Your task to perform on an android device: Open Android settings Image 0: 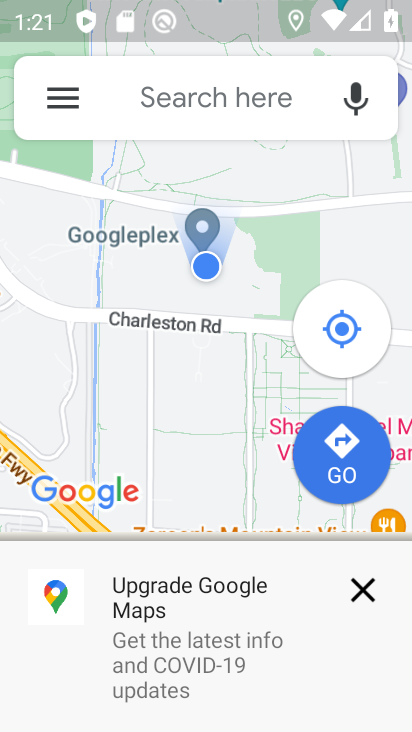
Step 0: press home button
Your task to perform on an android device: Open Android settings Image 1: 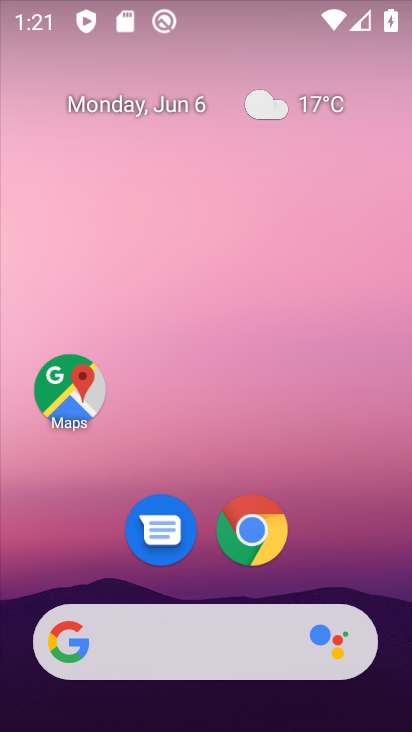
Step 1: drag from (269, 560) to (285, 197)
Your task to perform on an android device: Open Android settings Image 2: 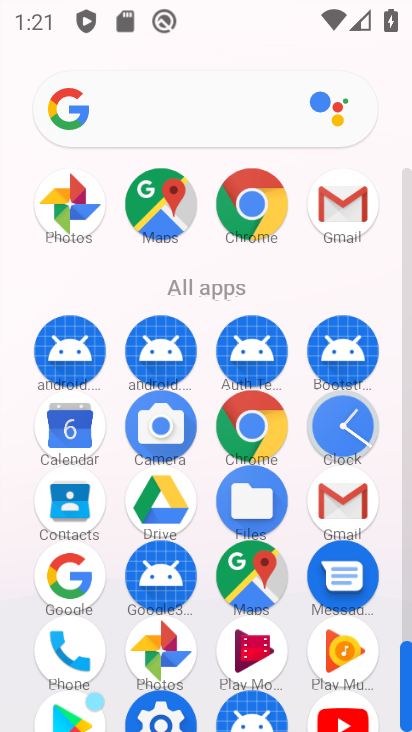
Step 2: click (164, 703)
Your task to perform on an android device: Open Android settings Image 3: 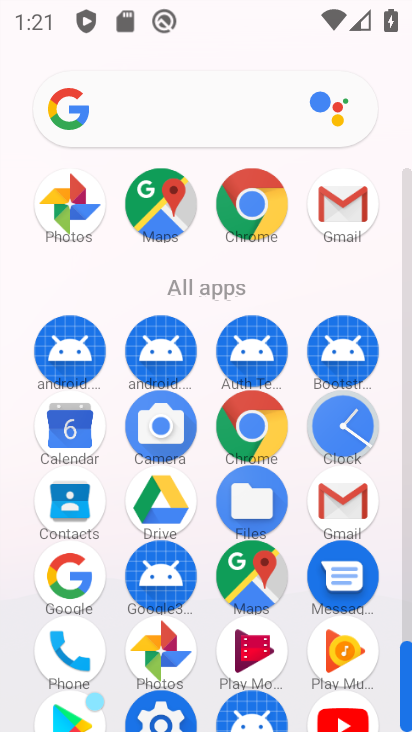
Step 3: drag from (199, 658) to (213, 375)
Your task to perform on an android device: Open Android settings Image 4: 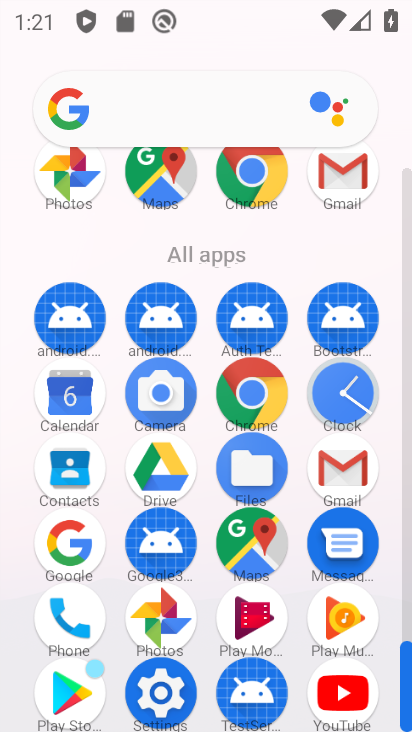
Step 4: click (160, 685)
Your task to perform on an android device: Open Android settings Image 5: 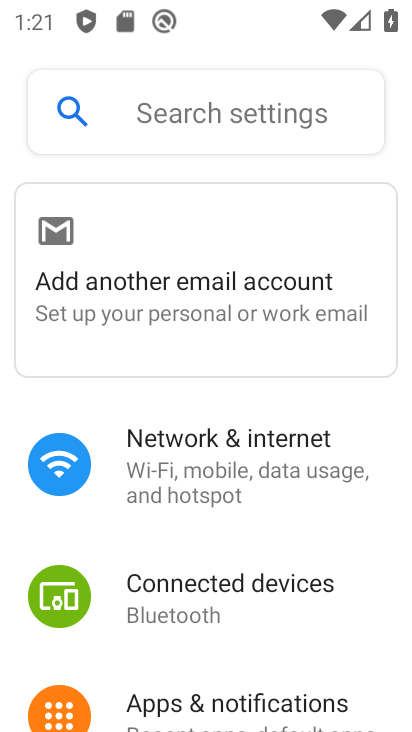
Step 5: task complete